Your task to perform on an android device: Go to sound settings Image 0: 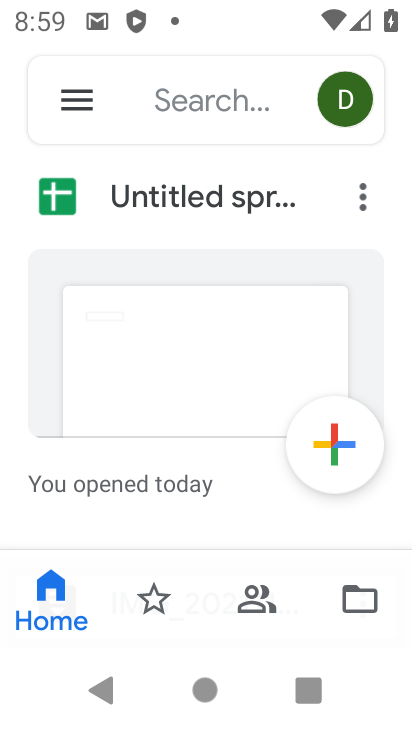
Step 0: press home button
Your task to perform on an android device: Go to sound settings Image 1: 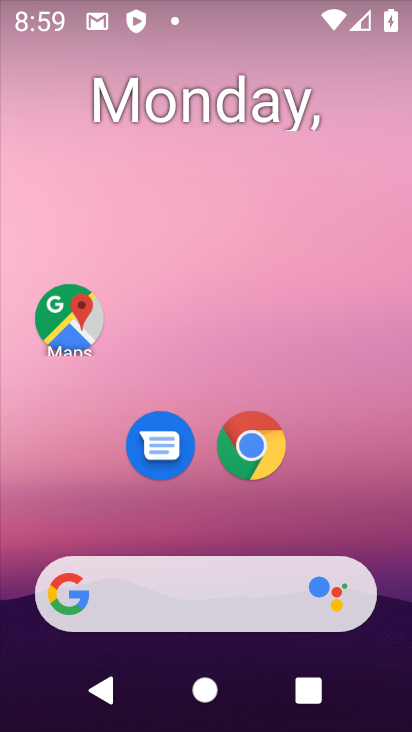
Step 1: drag from (256, 696) to (272, 34)
Your task to perform on an android device: Go to sound settings Image 2: 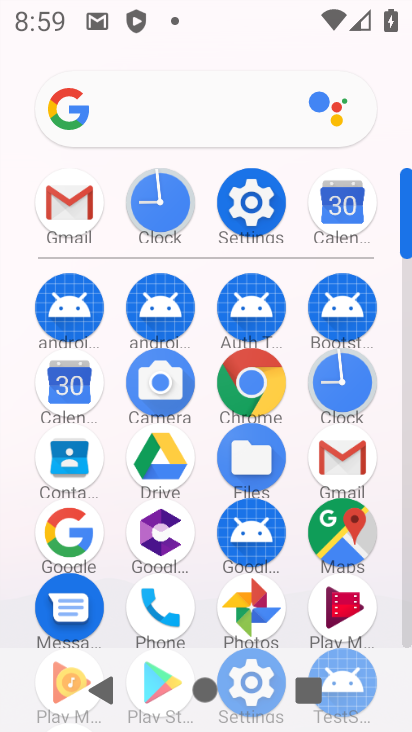
Step 2: click (264, 187)
Your task to perform on an android device: Go to sound settings Image 3: 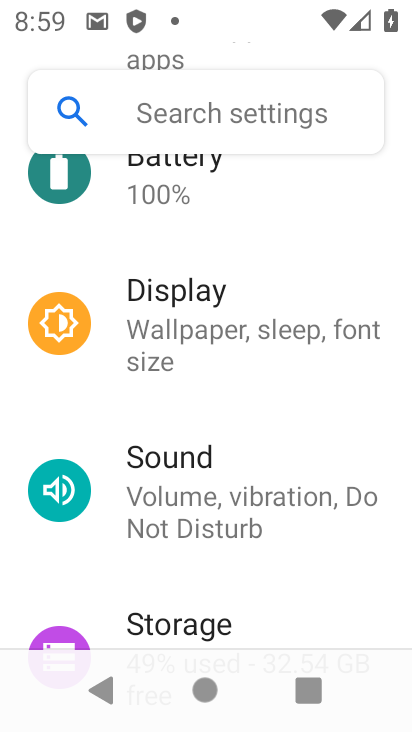
Step 3: click (240, 497)
Your task to perform on an android device: Go to sound settings Image 4: 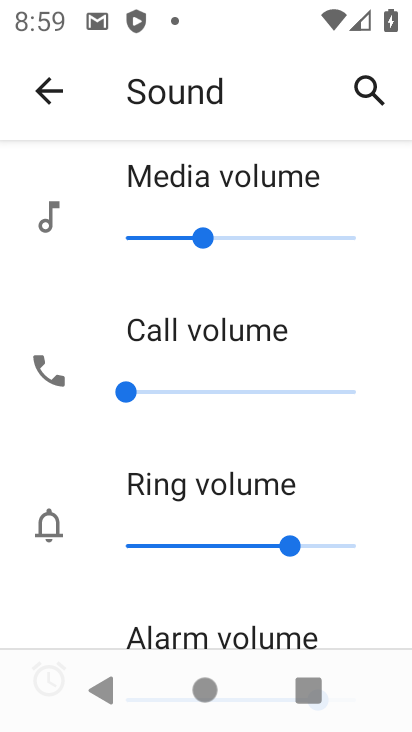
Step 4: task complete